Your task to perform on an android device: Search for seafood restaurants on Google Maps Image 0: 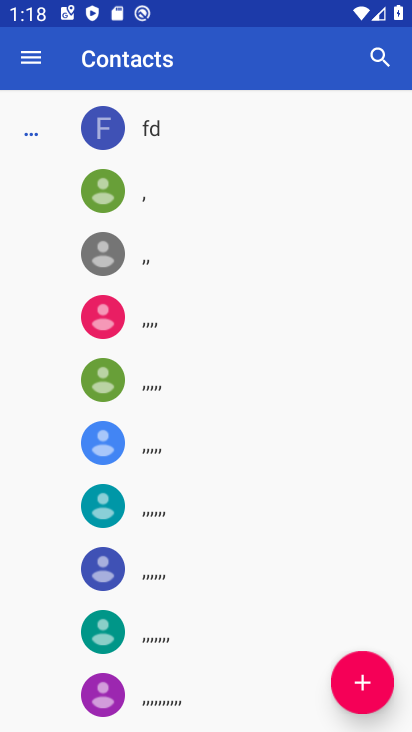
Step 0: press home button
Your task to perform on an android device: Search for seafood restaurants on Google Maps Image 1: 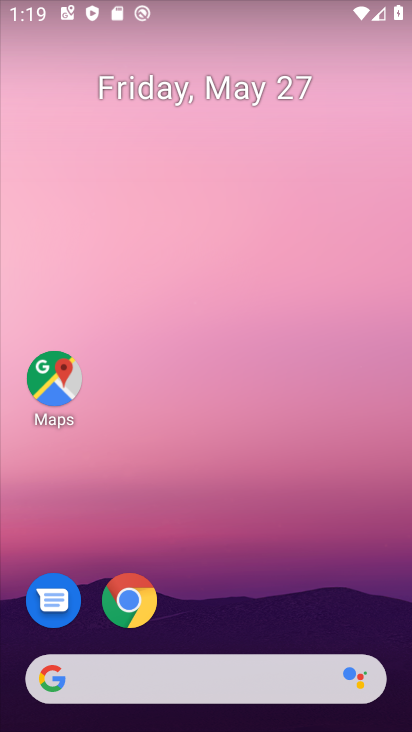
Step 1: drag from (209, 718) to (222, 121)
Your task to perform on an android device: Search for seafood restaurants on Google Maps Image 2: 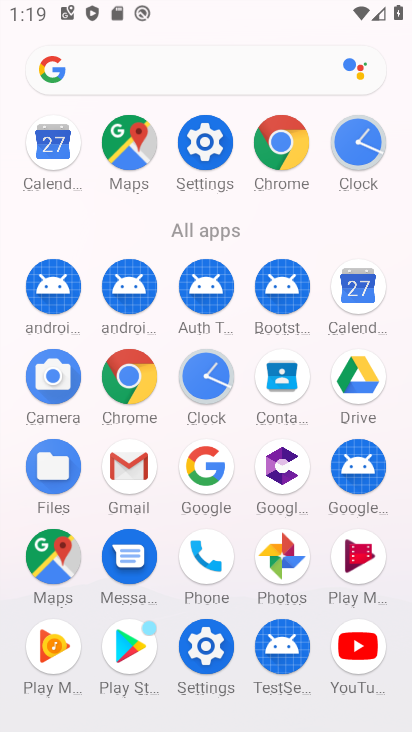
Step 2: click (49, 548)
Your task to perform on an android device: Search for seafood restaurants on Google Maps Image 3: 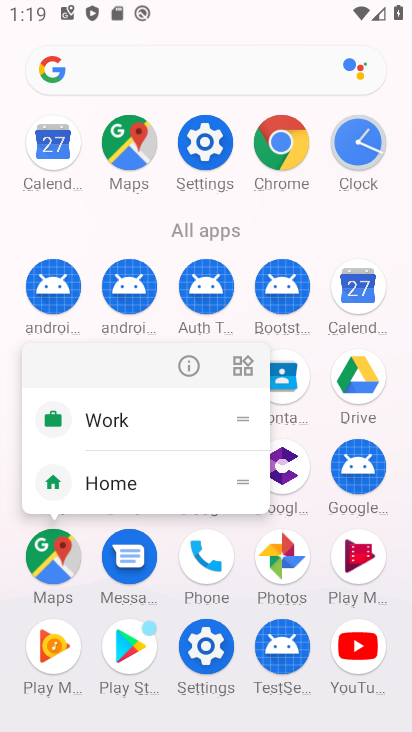
Step 3: click (47, 564)
Your task to perform on an android device: Search for seafood restaurants on Google Maps Image 4: 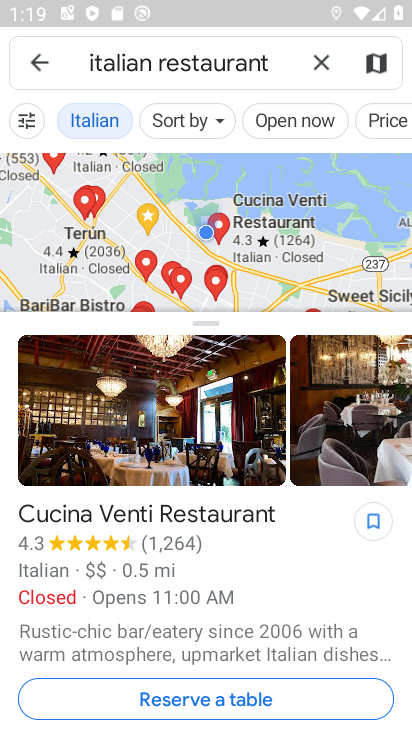
Step 4: click (316, 60)
Your task to perform on an android device: Search for seafood restaurants on Google Maps Image 5: 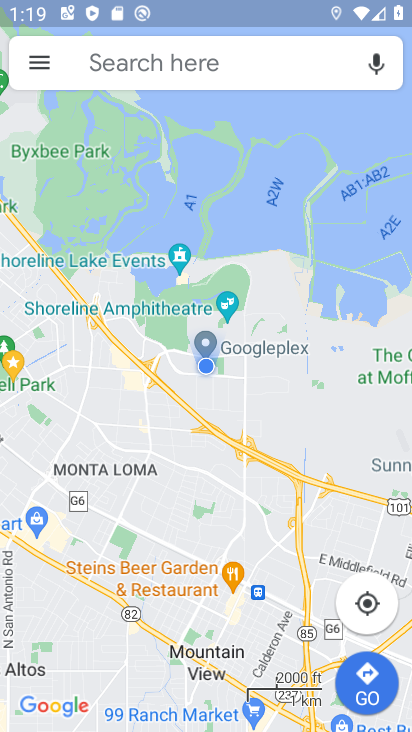
Step 5: click (232, 62)
Your task to perform on an android device: Search for seafood restaurants on Google Maps Image 6: 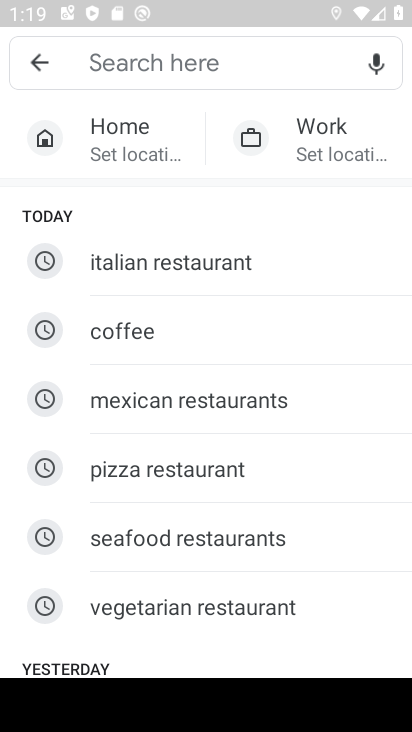
Step 6: type "seafood restaurants"
Your task to perform on an android device: Search for seafood restaurants on Google Maps Image 7: 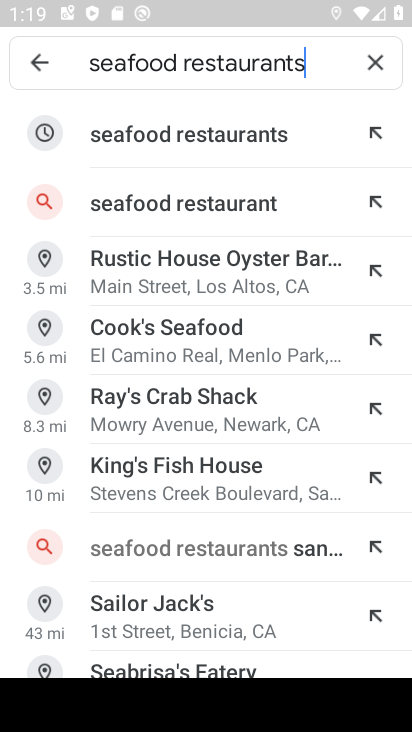
Step 7: click (151, 130)
Your task to perform on an android device: Search for seafood restaurants on Google Maps Image 8: 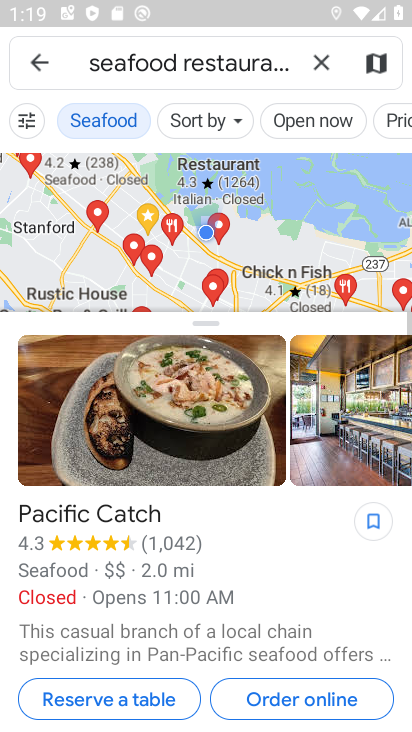
Step 8: task complete